Your task to perform on an android device: change your default location settings in chrome Image 0: 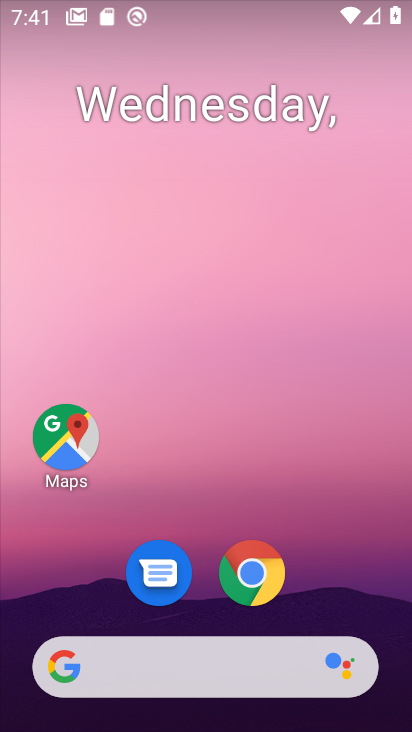
Step 0: click (257, 577)
Your task to perform on an android device: change your default location settings in chrome Image 1: 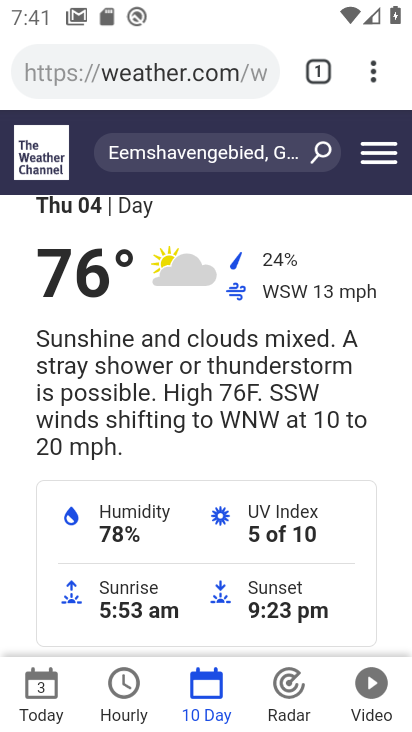
Step 1: click (375, 75)
Your task to perform on an android device: change your default location settings in chrome Image 2: 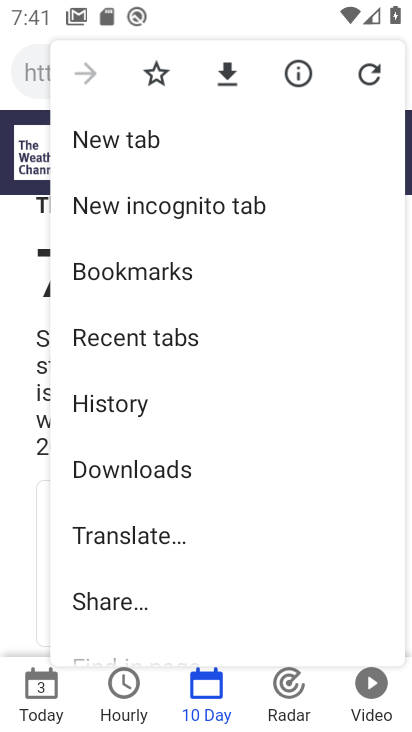
Step 2: drag from (270, 523) to (283, 202)
Your task to perform on an android device: change your default location settings in chrome Image 3: 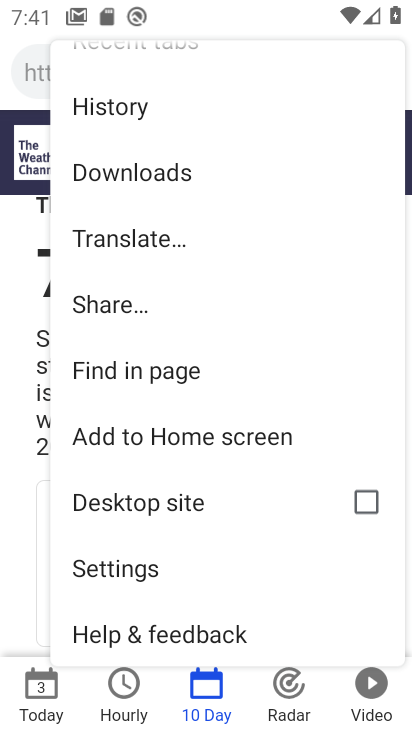
Step 3: click (133, 571)
Your task to perform on an android device: change your default location settings in chrome Image 4: 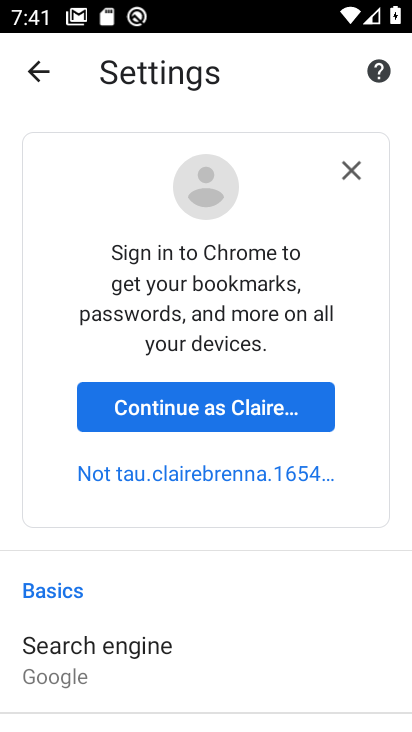
Step 4: drag from (262, 562) to (244, 155)
Your task to perform on an android device: change your default location settings in chrome Image 5: 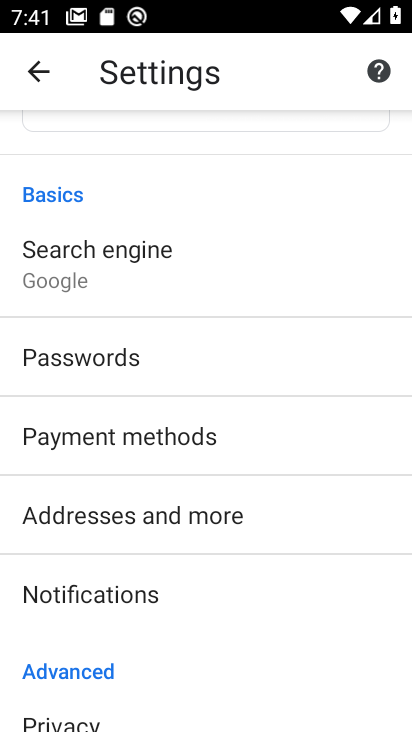
Step 5: drag from (245, 568) to (221, 137)
Your task to perform on an android device: change your default location settings in chrome Image 6: 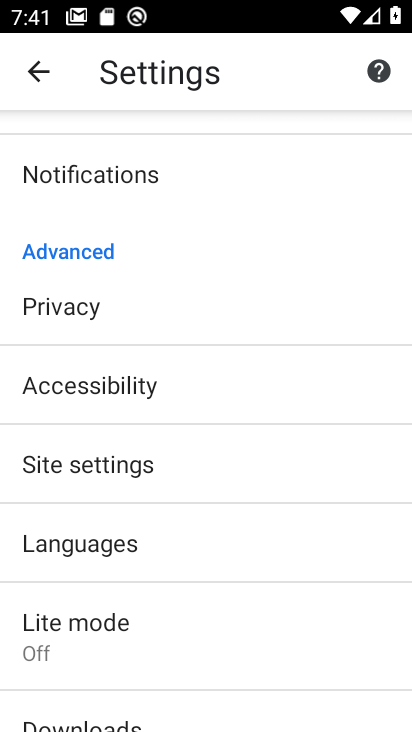
Step 6: click (141, 464)
Your task to perform on an android device: change your default location settings in chrome Image 7: 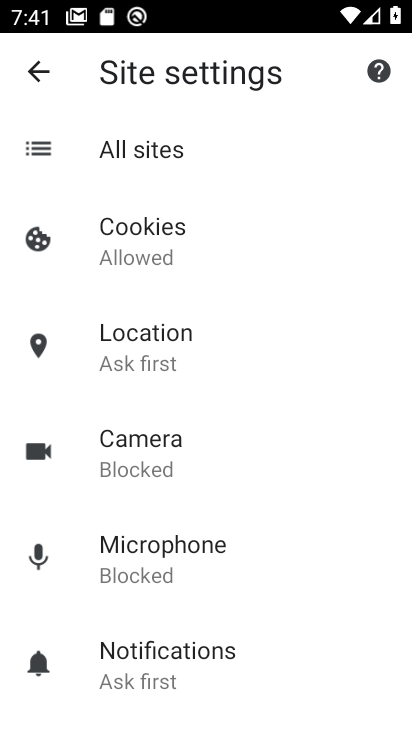
Step 7: click (167, 342)
Your task to perform on an android device: change your default location settings in chrome Image 8: 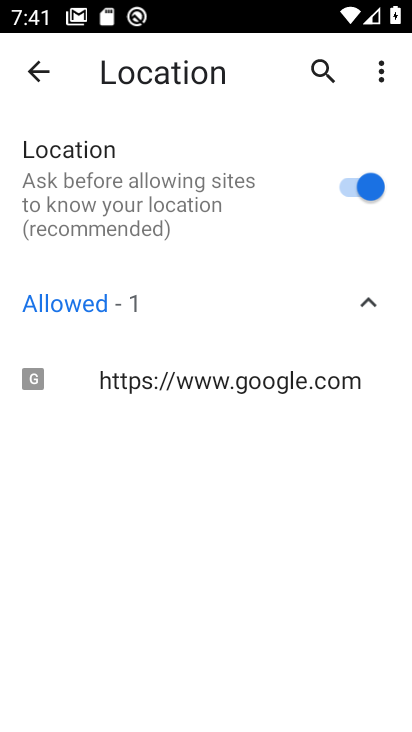
Step 8: click (369, 192)
Your task to perform on an android device: change your default location settings in chrome Image 9: 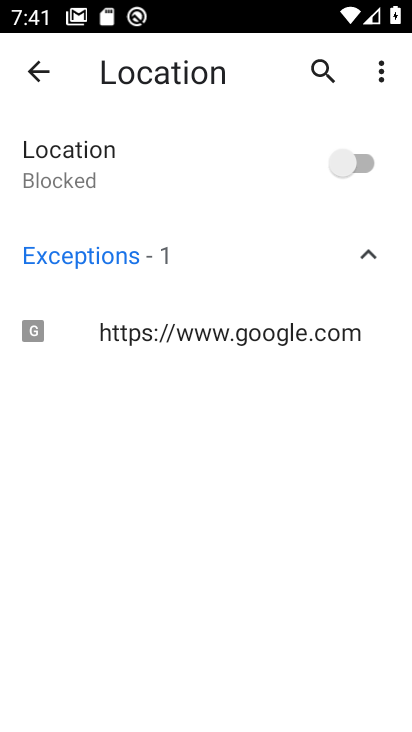
Step 9: task complete